Your task to perform on an android device: Search for seafood restaurants on Google Maps Image 0: 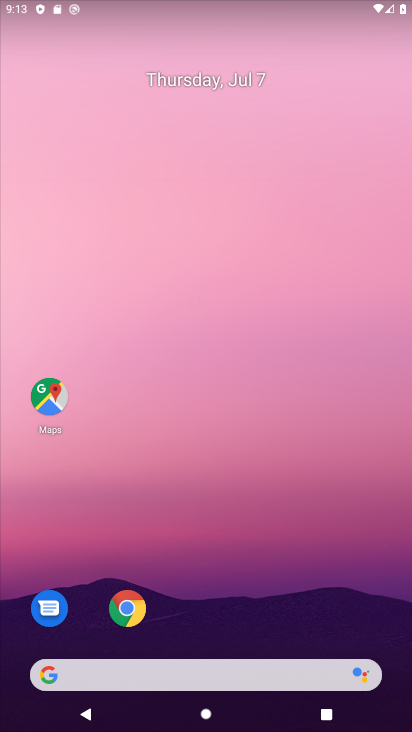
Step 0: drag from (222, 635) to (195, 141)
Your task to perform on an android device: Search for seafood restaurants on Google Maps Image 1: 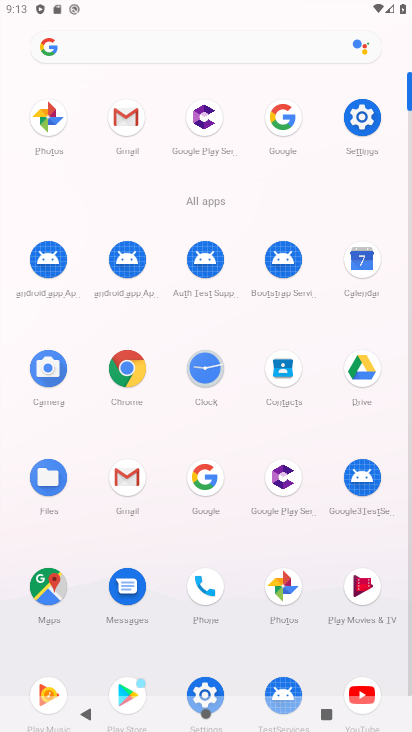
Step 1: click (50, 590)
Your task to perform on an android device: Search for seafood restaurants on Google Maps Image 2: 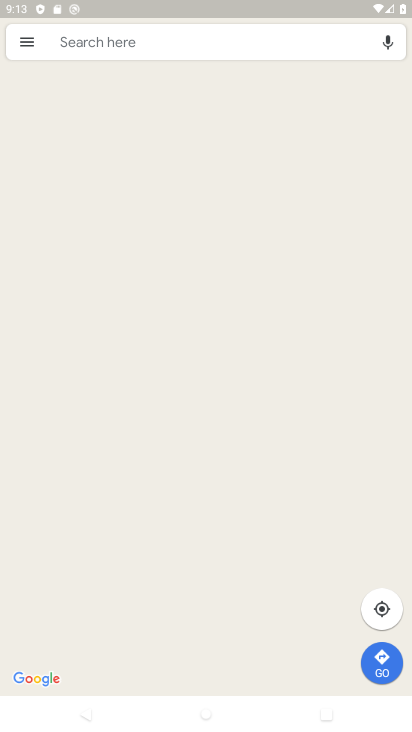
Step 2: click (177, 49)
Your task to perform on an android device: Search for seafood restaurants on Google Maps Image 3: 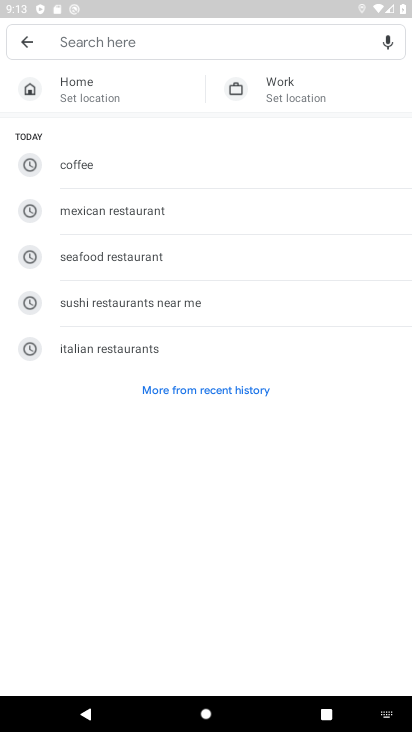
Step 3: type "seafood restaurants"
Your task to perform on an android device: Search for seafood restaurants on Google Maps Image 4: 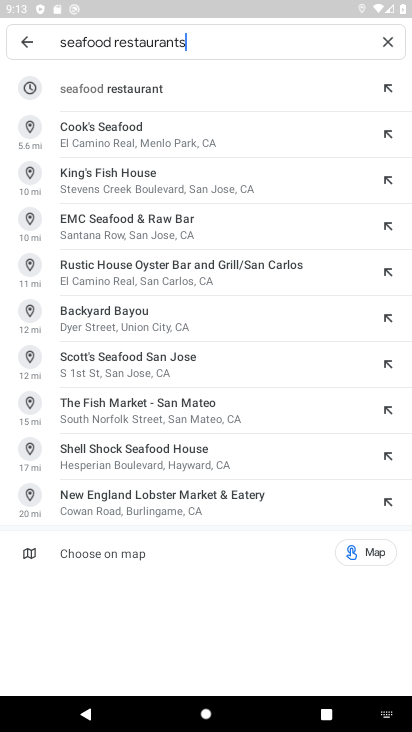
Step 4: click (192, 91)
Your task to perform on an android device: Search for seafood restaurants on Google Maps Image 5: 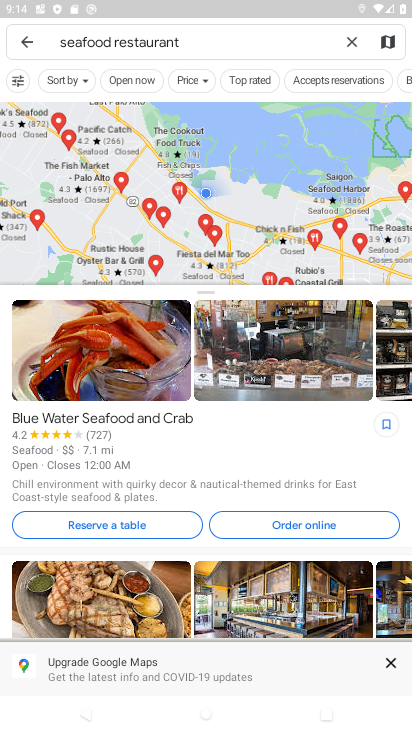
Step 5: task complete